Your task to perform on an android device: When is my next meeting? Image 0: 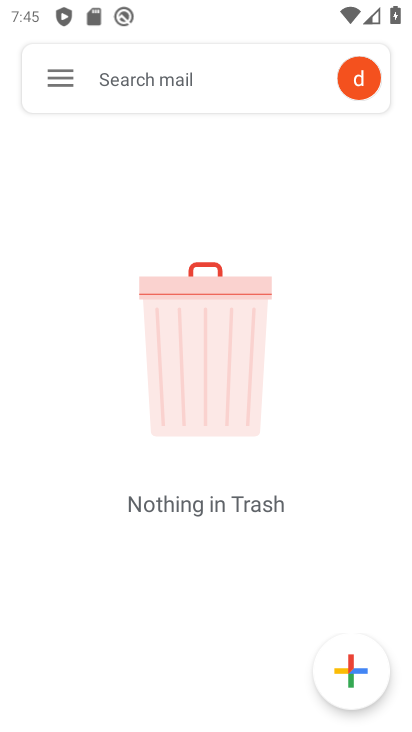
Step 0: press home button
Your task to perform on an android device: When is my next meeting? Image 1: 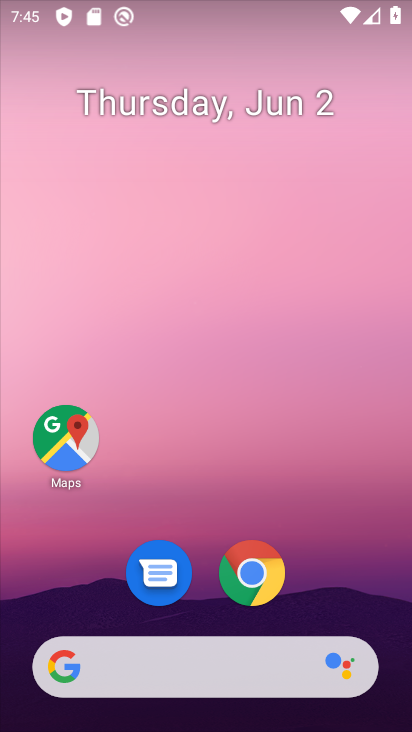
Step 1: drag from (335, 577) to (328, 47)
Your task to perform on an android device: When is my next meeting? Image 2: 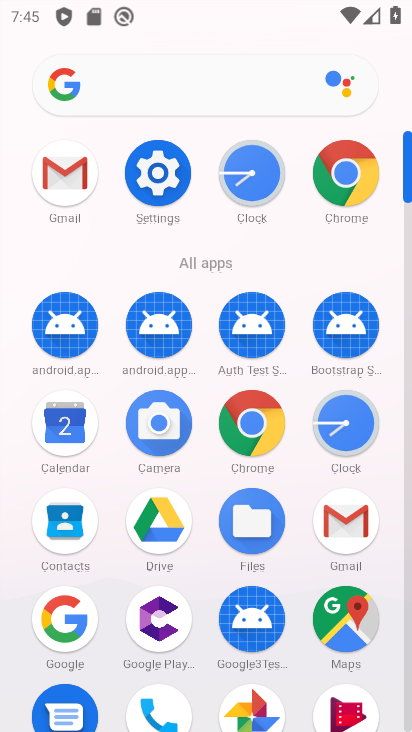
Step 2: click (64, 438)
Your task to perform on an android device: When is my next meeting? Image 3: 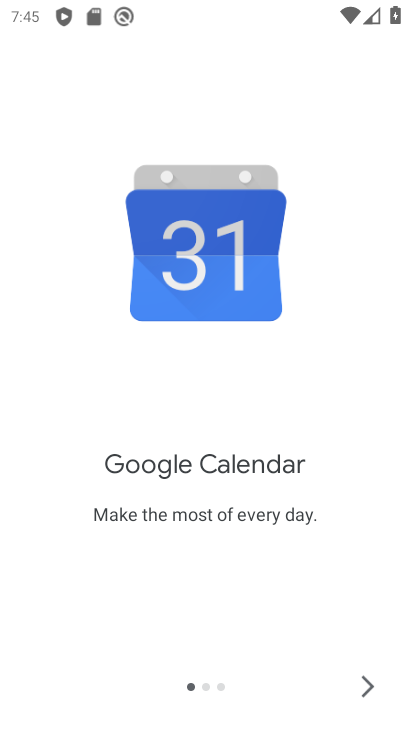
Step 3: click (369, 696)
Your task to perform on an android device: When is my next meeting? Image 4: 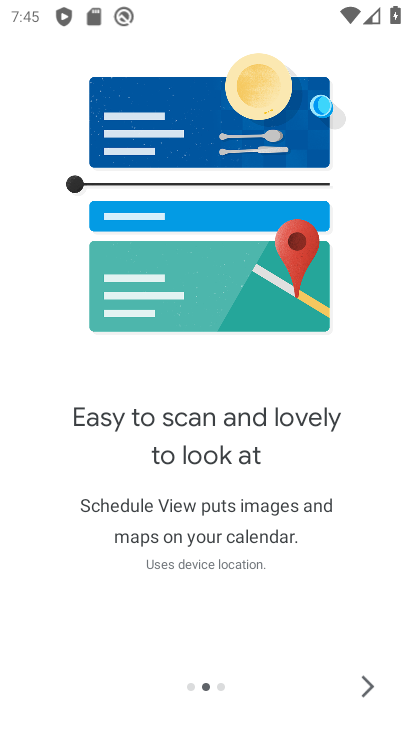
Step 4: click (369, 696)
Your task to perform on an android device: When is my next meeting? Image 5: 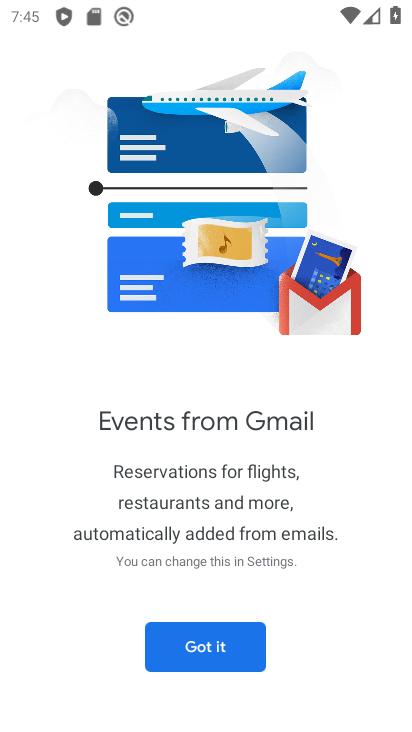
Step 5: click (232, 653)
Your task to perform on an android device: When is my next meeting? Image 6: 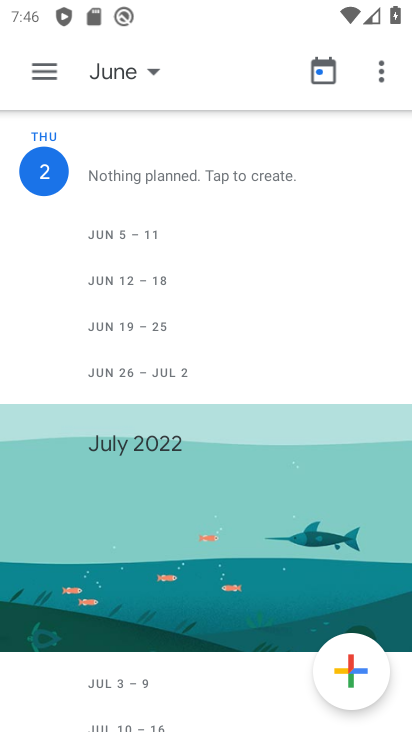
Step 6: click (164, 64)
Your task to perform on an android device: When is my next meeting? Image 7: 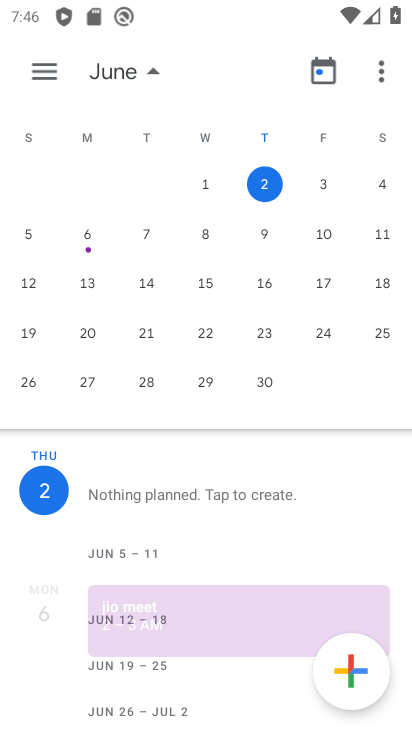
Step 7: click (330, 587)
Your task to perform on an android device: When is my next meeting? Image 8: 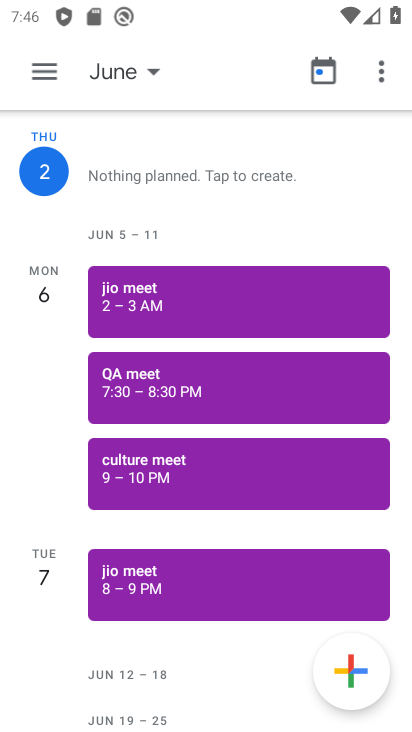
Step 8: task complete